Your task to perform on an android device: check the backup settings in the google photos Image 0: 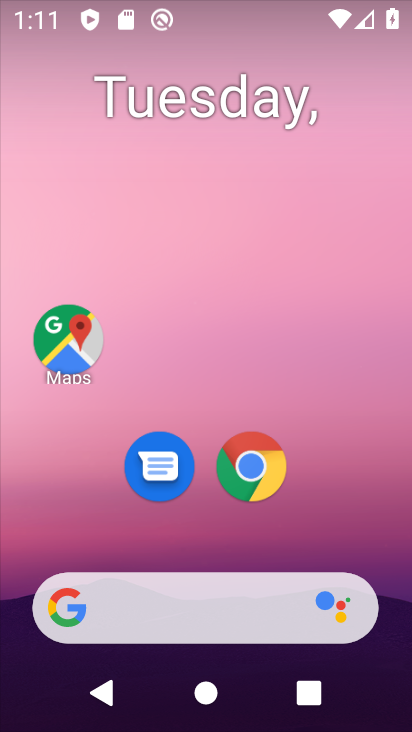
Step 0: drag from (394, 558) to (335, 247)
Your task to perform on an android device: check the backup settings in the google photos Image 1: 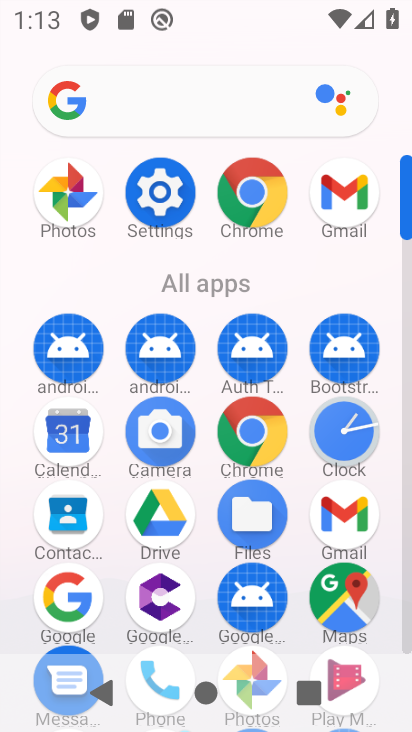
Step 1: task complete